Your task to perform on an android device: turn off location history Image 0: 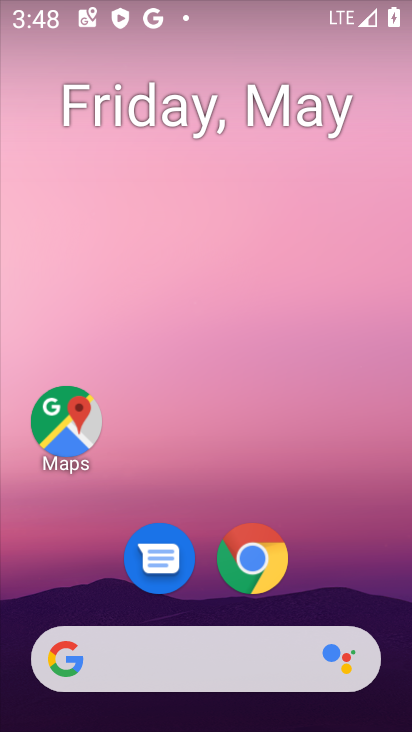
Step 0: press home button
Your task to perform on an android device: turn off location history Image 1: 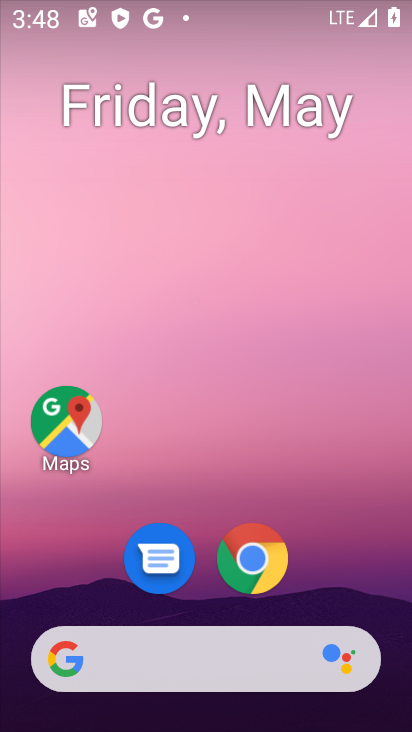
Step 1: click (68, 441)
Your task to perform on an android device: turn off location history Image 2: 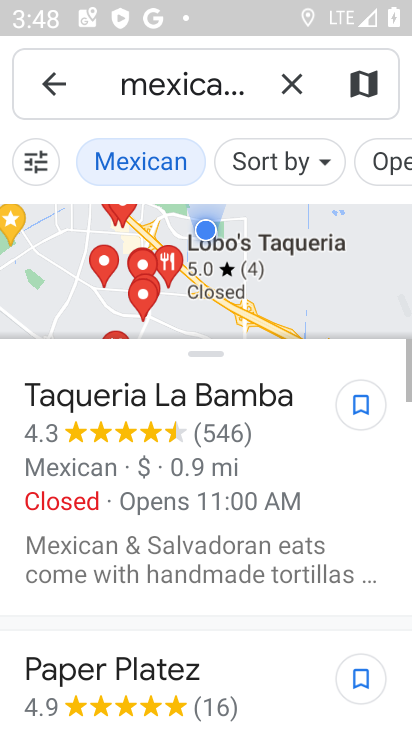
Step 2: click (50, 88)
Your task to perform on an android device: turn off location history Image 3: 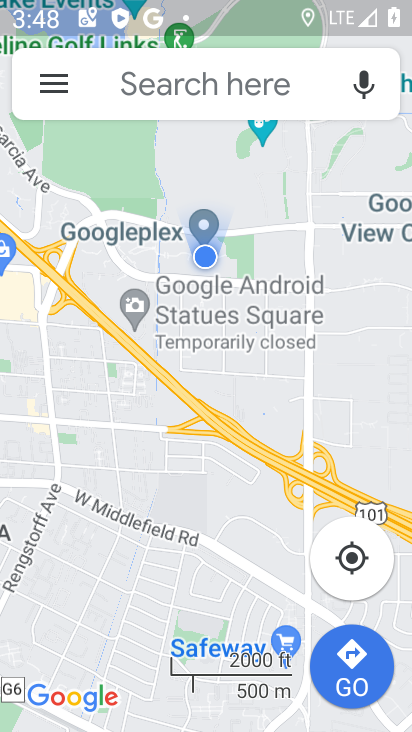
Step 3: click (47, 88)
Your task to perform on an android device: turn off location history Image 4: 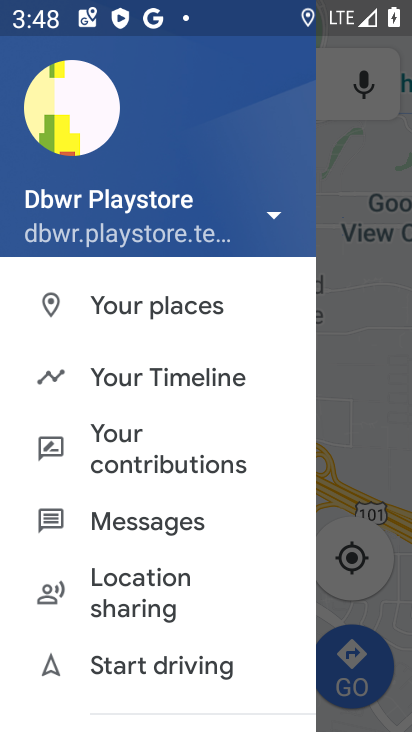
Step 4: click (197, 372)
Your task to perform on an android device: turn off location history Image 5: 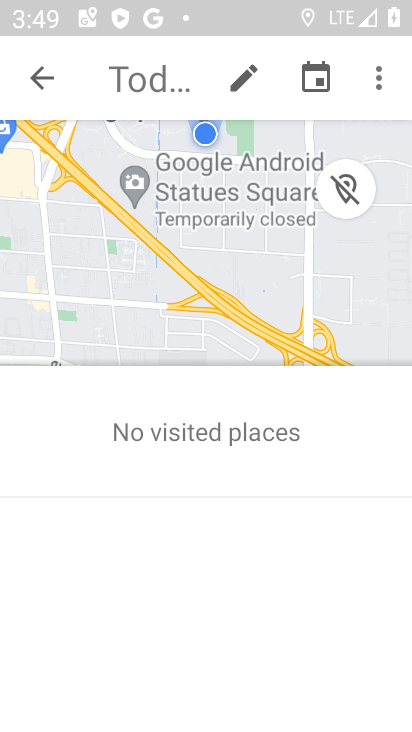
Step 5: click (373, 87)
Your task to perform on an android device: turn off location history Image 6: 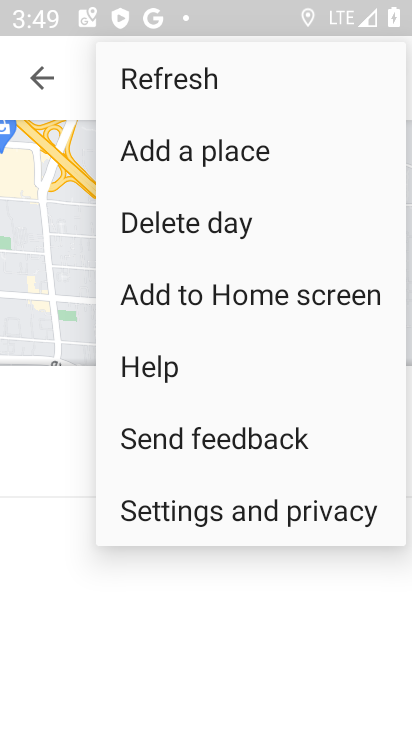
Step 6: click (234, 518)
Your task to perform on an android device: turn off location history Image 7: 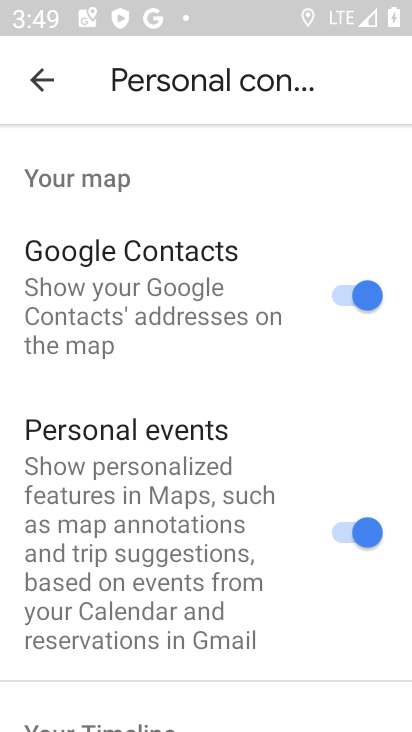
Step 7: drag from (189, 622) to (297, 190)
Your task to perform on an android device: turn off location history Image 8: 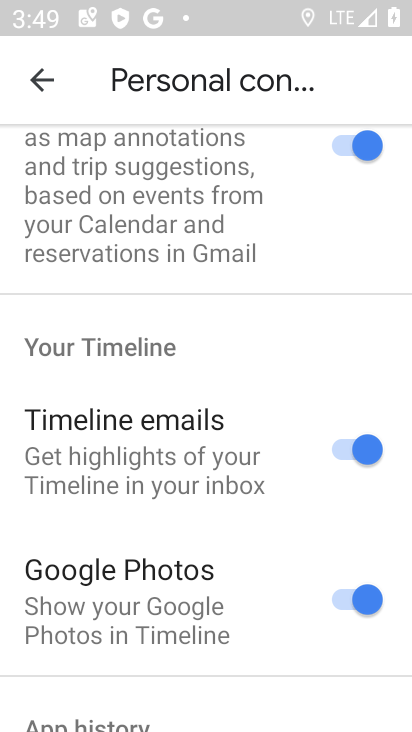
Step 8: drag from (140, 652) to (369, 113)
Your task to perform on an android device: turn off location history Image 9: 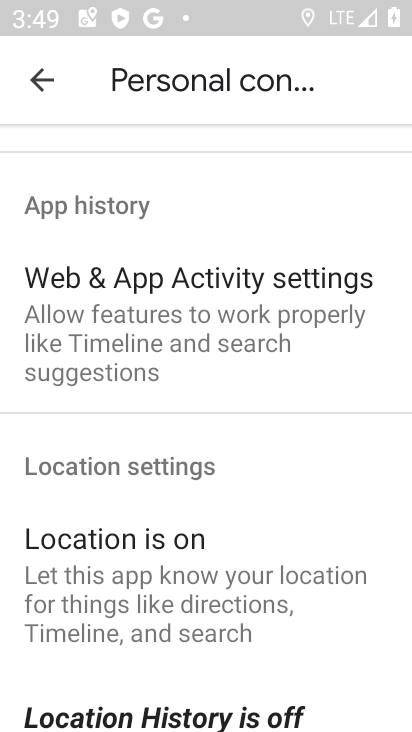
Step 9: drag from (211, 553) to (315, 261)
Your task to perform on an android device: turn off location history Image 10: 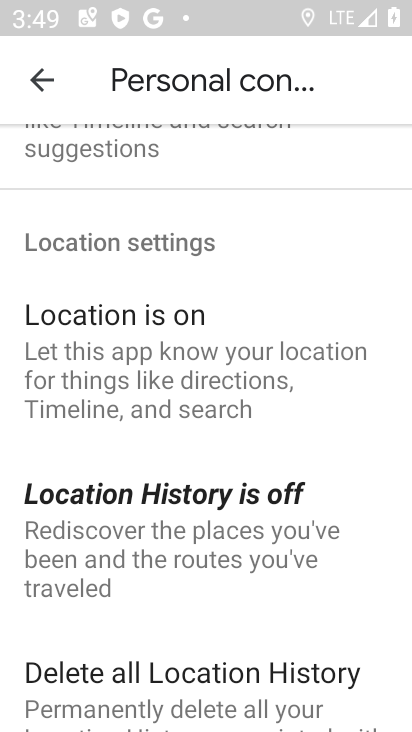
Step 10: click (226, 532)
Your task to perform on an android device: turn off location history Image 11: 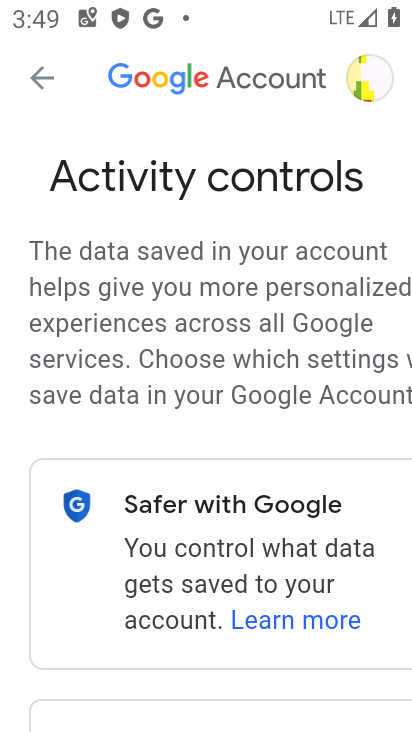
Step 11: task complete